Your task to perform on an android device: open app "Speedtest by Ookla" (install if not already installed) Image 0: 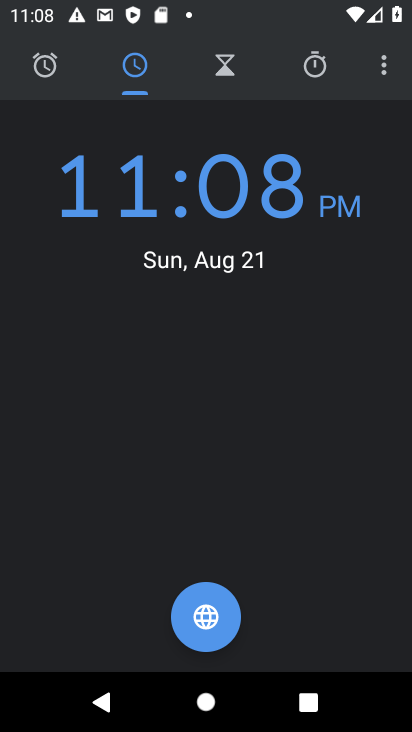
Step 0: press home button
Your task to perform on an android device: open app "Speedtest by Ookla" (install if not already installed) Image 1: 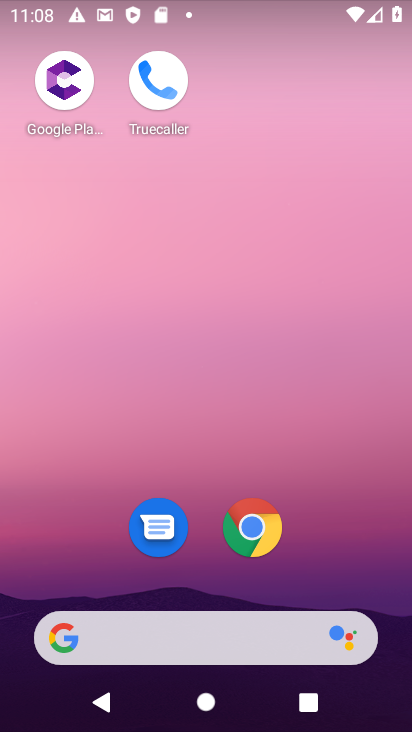
Step 1: drag from (215, 523) to (238, 119)
Your task to perform on an android device: open app "Speedtest by Ookla" (install if not already installed) Image 2: 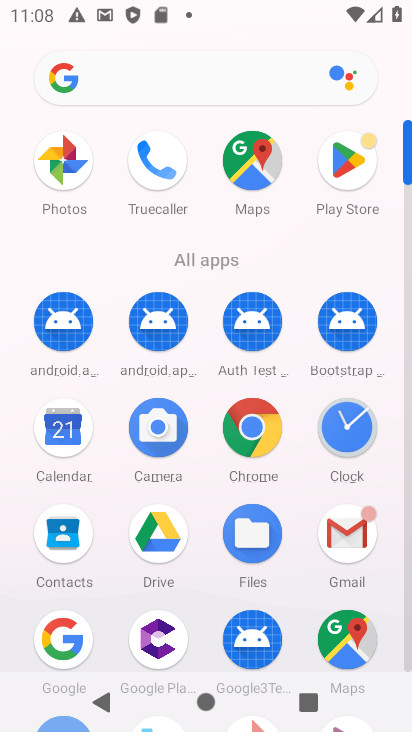
Step 2: click (359, 166)
Your task to perform on an android device: open app "Speedtest by Ookla" (install if not already installed) Image 3: 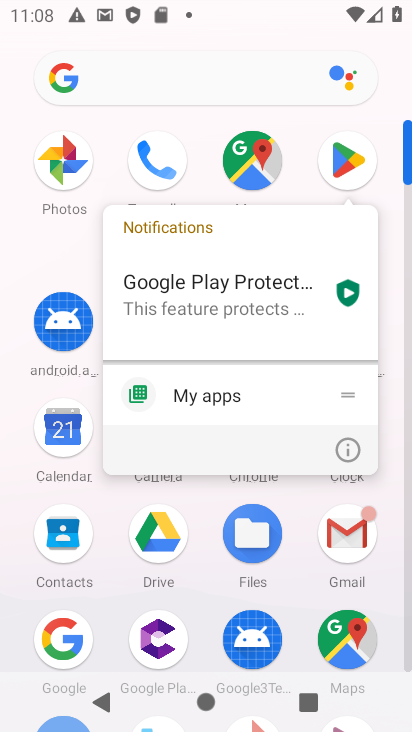
Step 3: click (348, 172)
Your task to perform on an android device: open app "Speedtest by Ookla" (install if not already installed) Image 4: 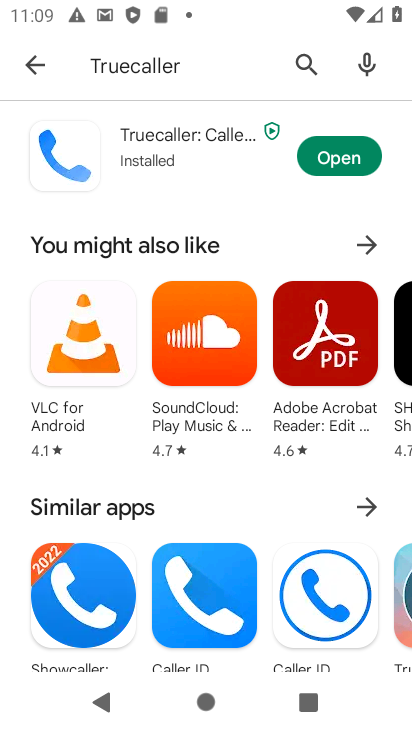
Step 4: press back button
Your task to perform on an android device: open app "Speedtest by Ookla" (install if not already installed) Image 5: 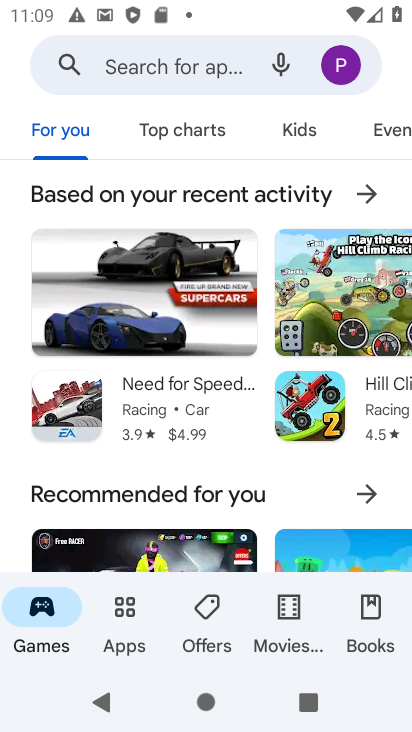
Step 5: click (177, 57)
Your task to perform on an android device: open app "Speedtest by Ookla" (install if not already installed) Image 6: 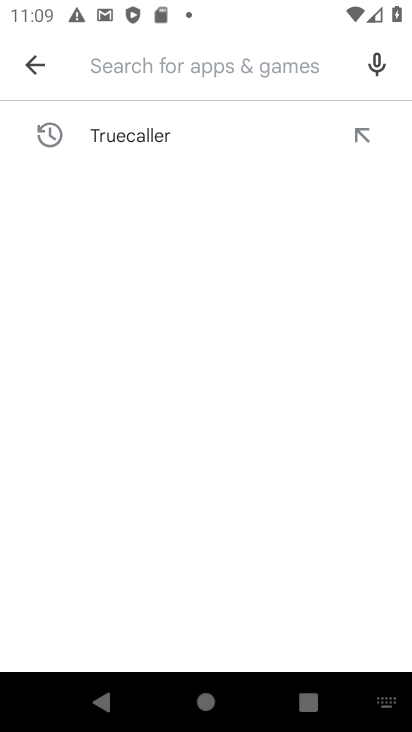
Step 6: type "Speedtest by Ookla"
Your task to perform on an android device: open app "Speedtest by Ookla" (install if not already installed) Image 7: 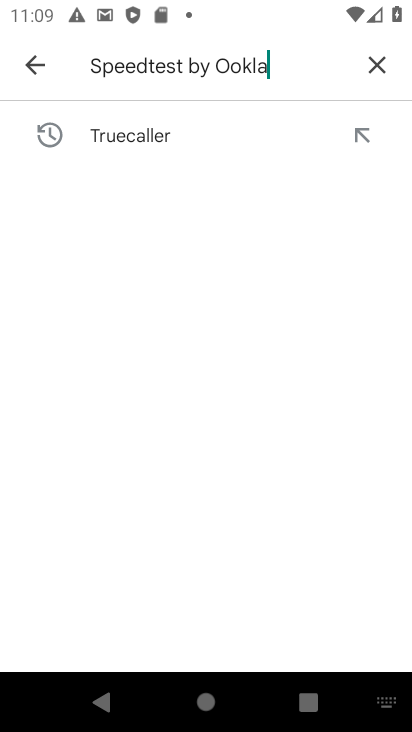
Step 7: press enter
Your task to perform on an android device: open app "Speedtest by Ookla" (install if not already installed) Image 8: 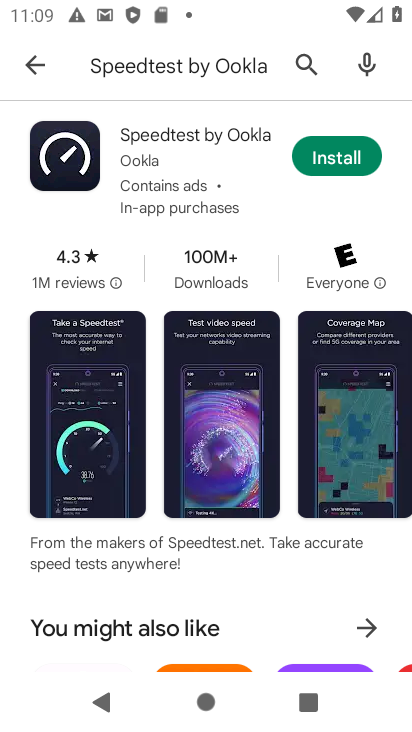
Step 8: click (334, 158)
Your task to perform on an android device: open app "Speedtest by Ookla" (install if not already installed) Image 9: 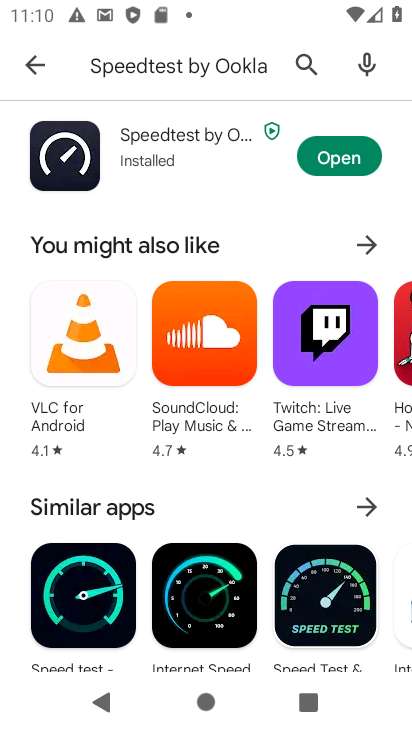
Step 9: click (347, 149)
Your task to perform on an android device: open app "Speedtest by Ookla" (install if not already installed) Image 10: 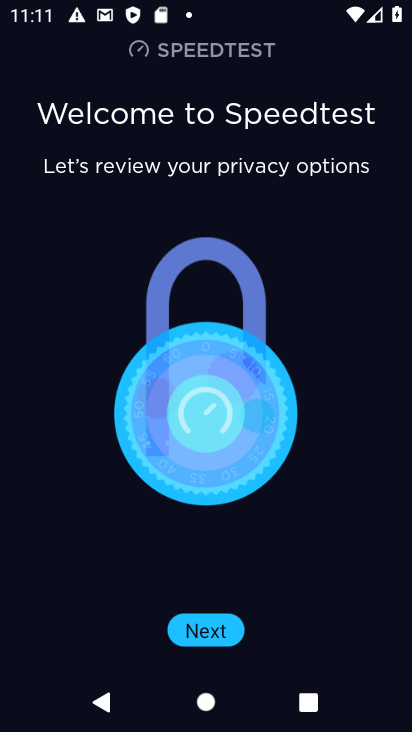
Step 10: click (194, 632)
Your task to perform on an android device: open app "Speedtest by Ookla" (install if not already installed) Image 11: 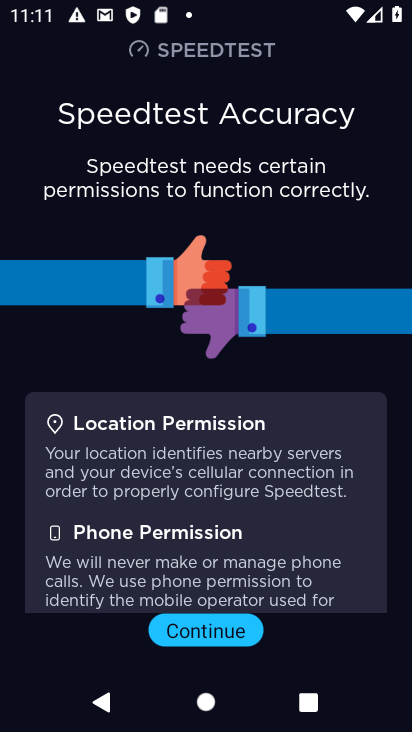
Step 11: click (174, 630)
Your task to perform on an android device: open app "Speedtest by Ookla" (install if not already installed) Image 12: 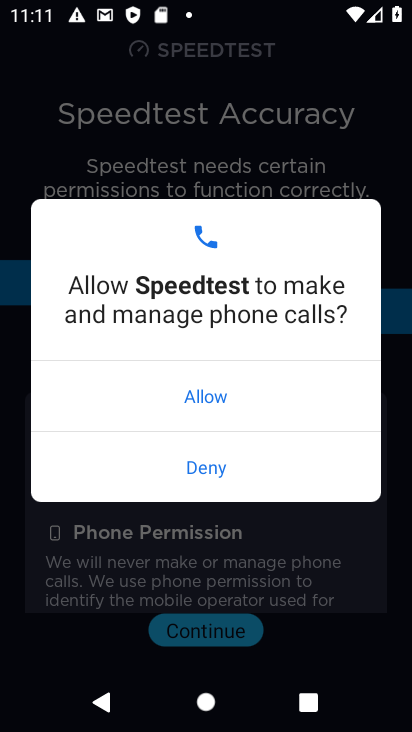
Step 12: task complete